Your task to perform on an android device: turn off wifi Image 0: 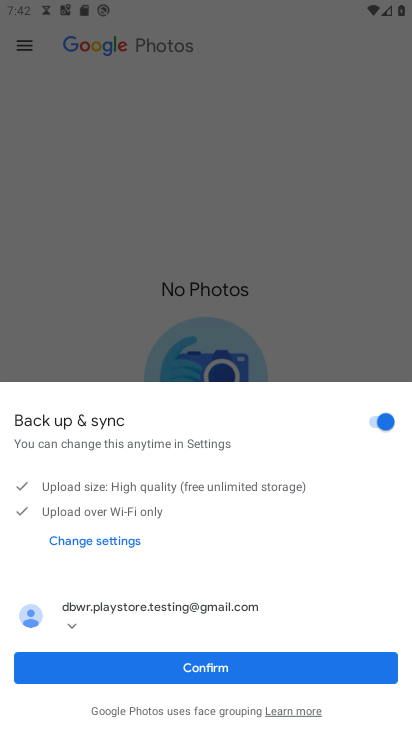
Step 0: press home button
Your task to perform on an android device: turn off wifi Image 1: 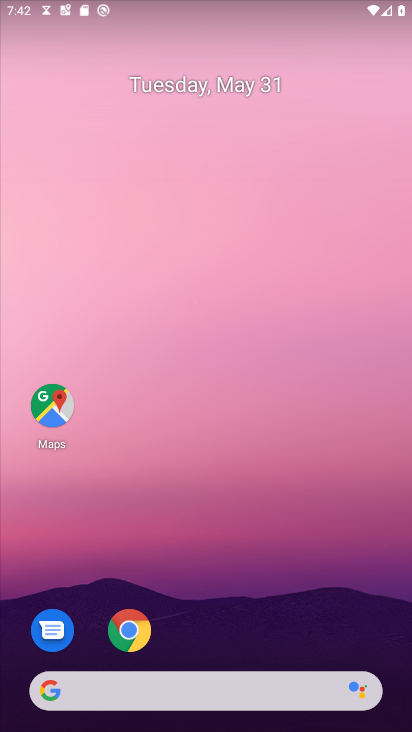
Step 1: drag from (260, 623) to (199, 142)
Your task to perform on an android device: turn off wifi Image 2: 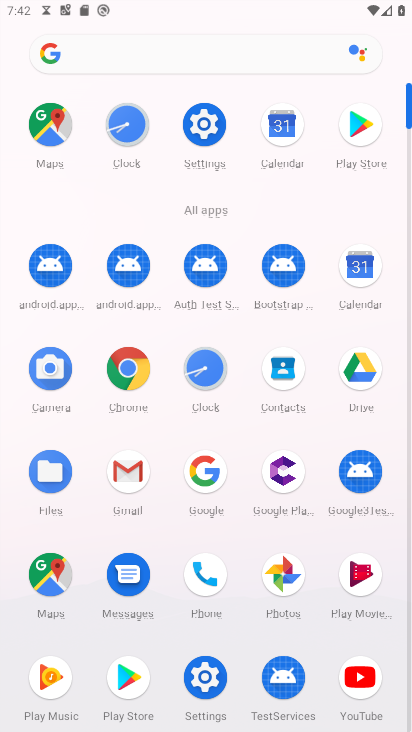
Step 2: click (204, 124)
Your task to perform on an android device: turn off wifi Image 3: 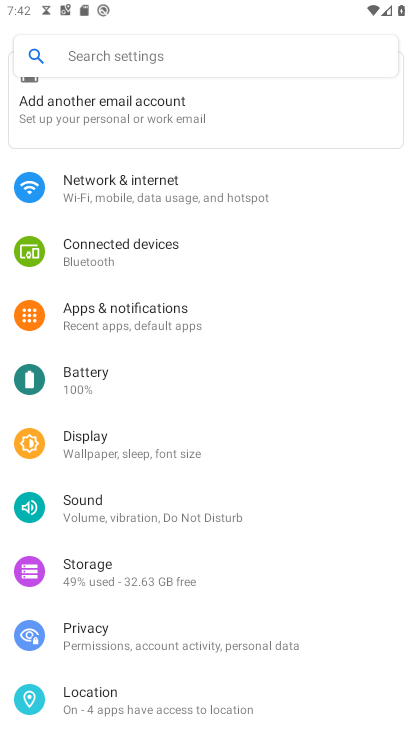
Step 3: click (174, 192)
Your task to perform on an android device: turn off wifi Image 4: 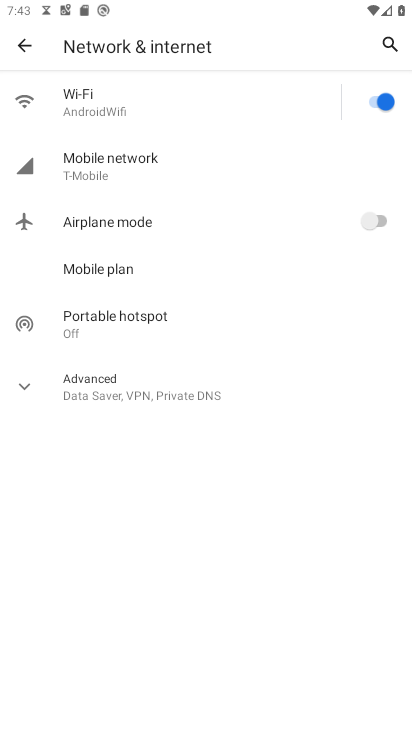
Step 4: click (377, 98)
Your task to perform on an android device: turn off wifi Image 5: 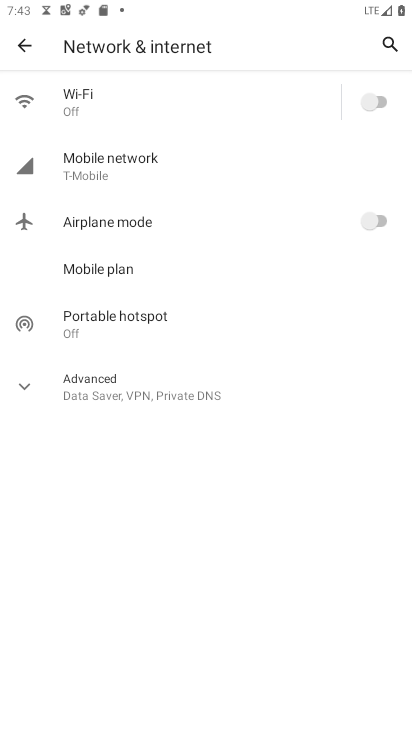
Step 5: task complete